Your task to perform on an android device: Is it going to rain tomorrow? Image 0: 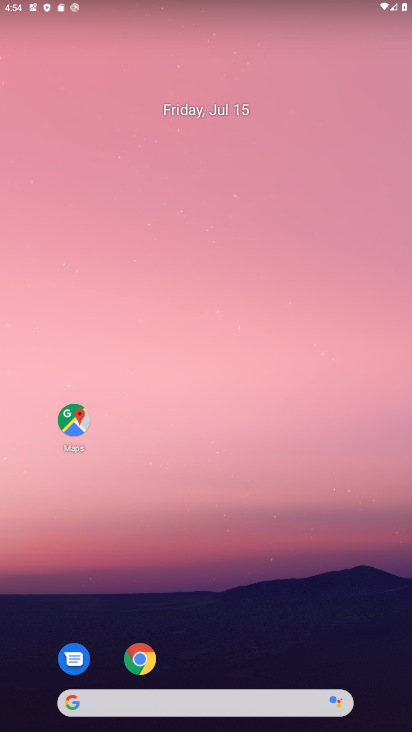
Step 0: drag from (231, 587) to (241, 0)
Your task to perform on an android device: Is it going to rain tomorrow? Image 1: 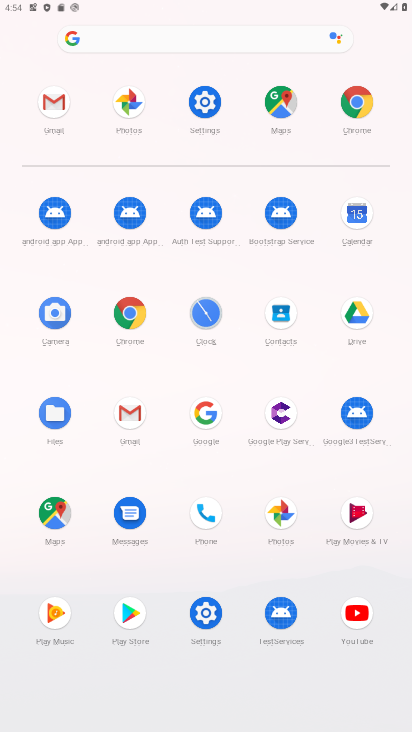
Step 1: click (208, 436)
Your task to perform on an android device: Is it going to rain tomorrow? Image 2: 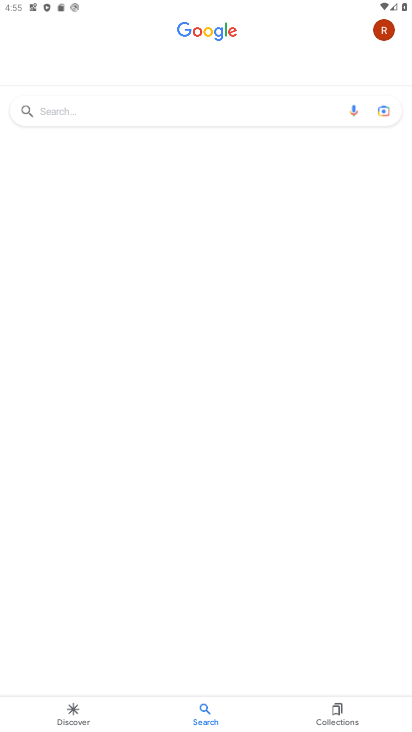
Step 2: click (138, 211)
Your task to perform on an android device: Is it going to rain tomorrow? Image 3: 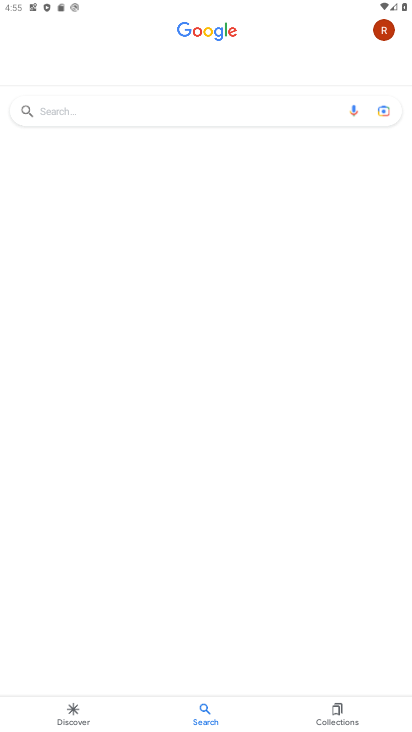
Step 3: click (112, 115)
Your task to perform on an android device: Is it going to rain tomorrow? Image 4: 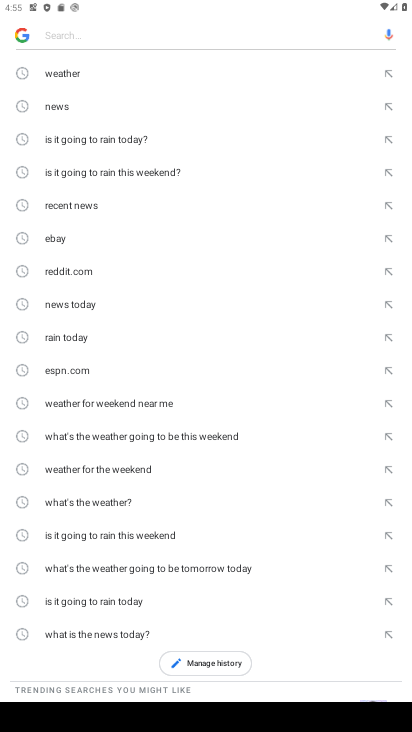
Step 4: click (58, 76)
Your task to perform on an android device: Is it going to rain tomorrow? Image 5: 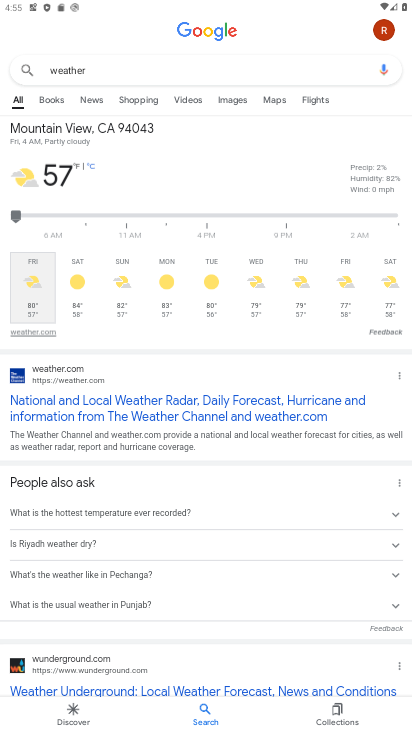
Step 5: task complete